Your task to perform on an android device: toggle show notifications on the lock screen Image 0: 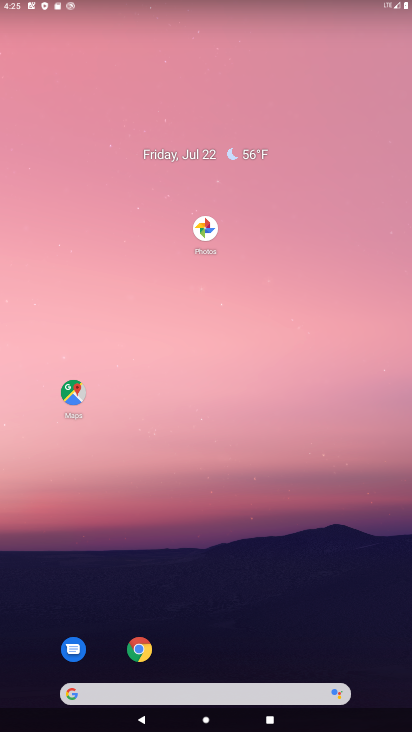
Step 0: drag from (160, 571) to (88, 158)
Your task to perform on an android device: toggle show notifications on the lock screen Image 1: 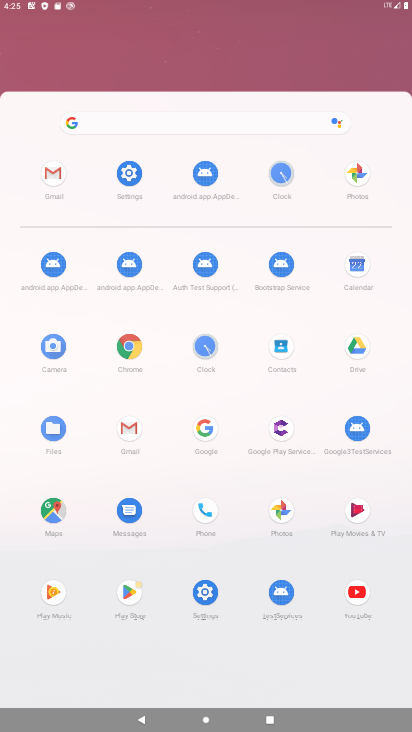
Step 1: drag from (166, 543) to (121, 104)
Your task to perform on an android device: toggle show notifications on the lock screen Image 2: 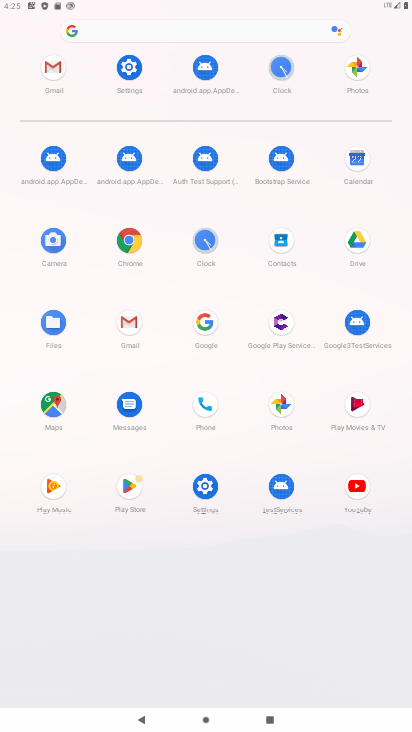
Step 2: drag from (202, 265) to (167, 115)
Your task to perform on an android device: toggle show notifications on the lock screen Image 3: 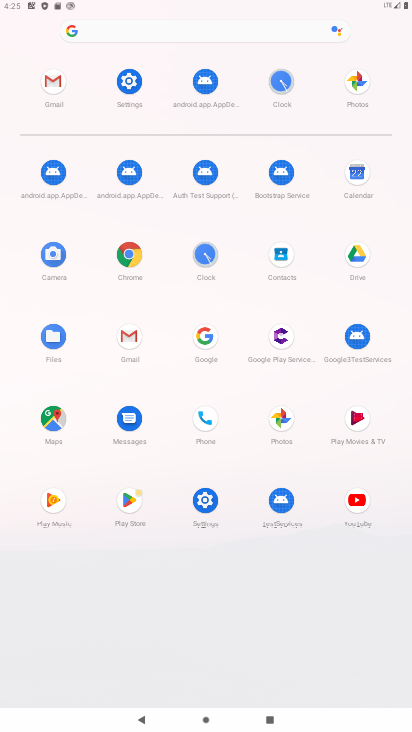
Step 3: click (130, 80)
Your task to perform on an android device: toggle show notifications on the lock screen Image 4: 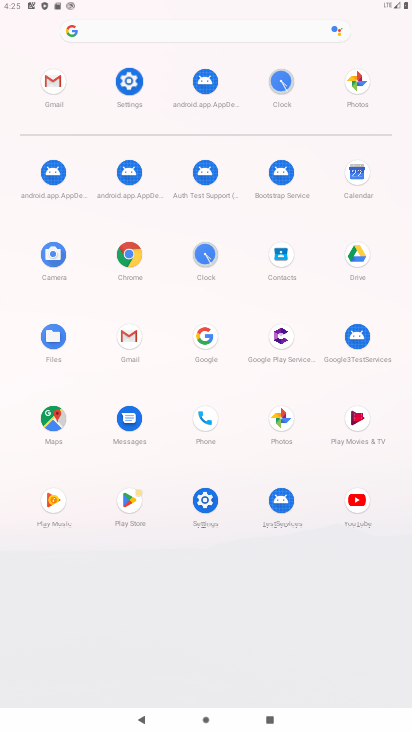
Step 4: click (130, 80)
Your task to perform on an android device: toggle show notifications on the lock screen Image 5: 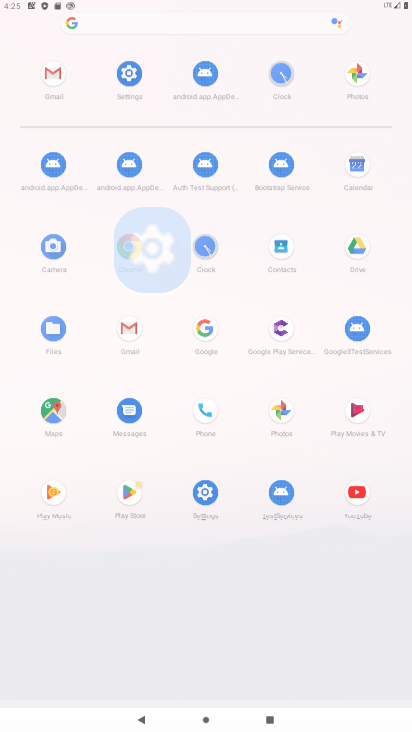
Step 5: click (130, 80)
Your task to perform on an android device: toggle show notifications on the lock screen Image 6: 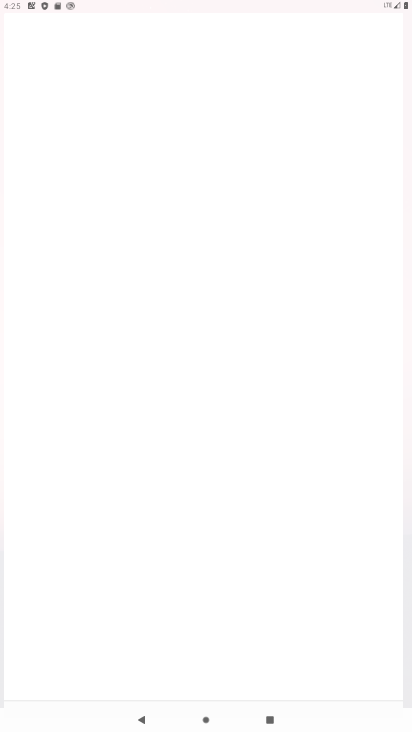
Step 6: click (131, 80)
Your task to perform on an android device: toggle show notifications on the lock screen Image 7: 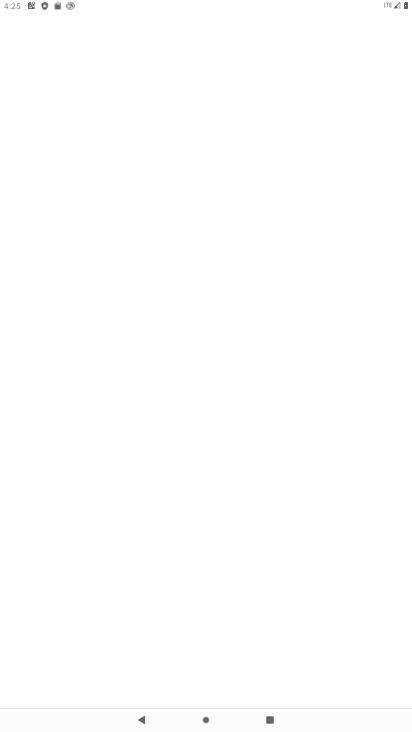
Step 7: click (131, 80)
Your task to perform on an android device: toggle show notifications on the lock screen Image 8: 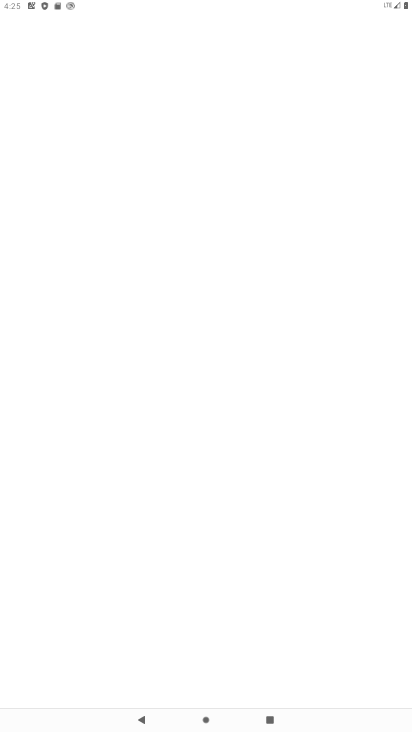
Step 8: click (132, 80)
Your task to perform on an android device: toggle show notifications on the lock screen Image 9: 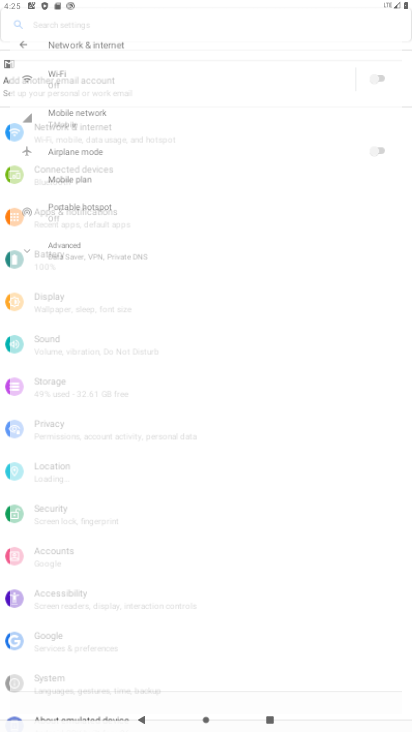
Step 9: click (134, 81)
Your task to perform on an android device: toggle show notifications on the lock screen Image 10: 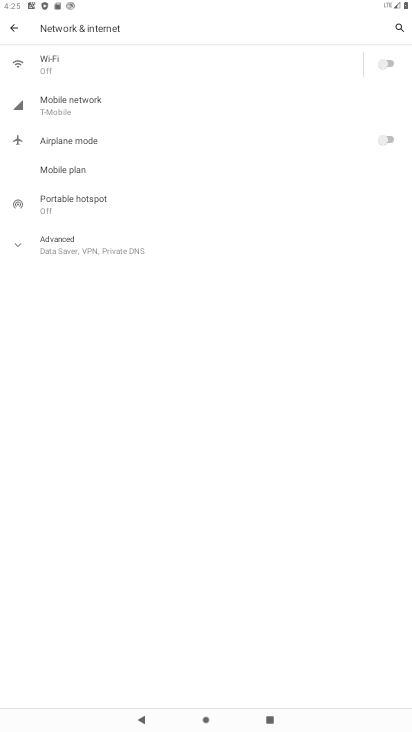
Step 10: click (135, 82)
Your task to perform on an android device: toggle show notifications on the lock screen Image 11: 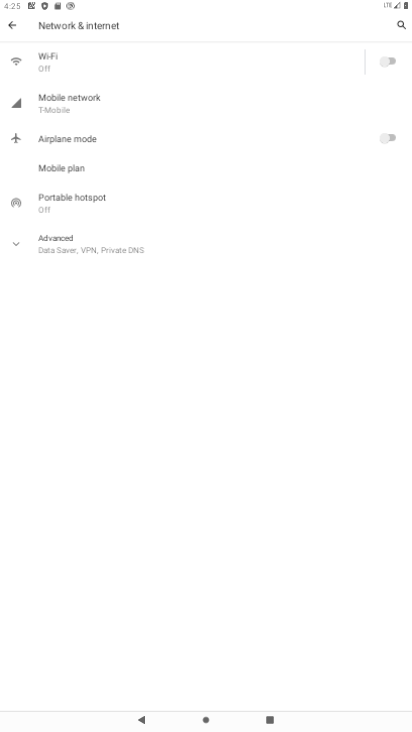
Step 11: click (135, 82)
Your task to perform on an android device: toggle show notifications on the lock screen Image 12: 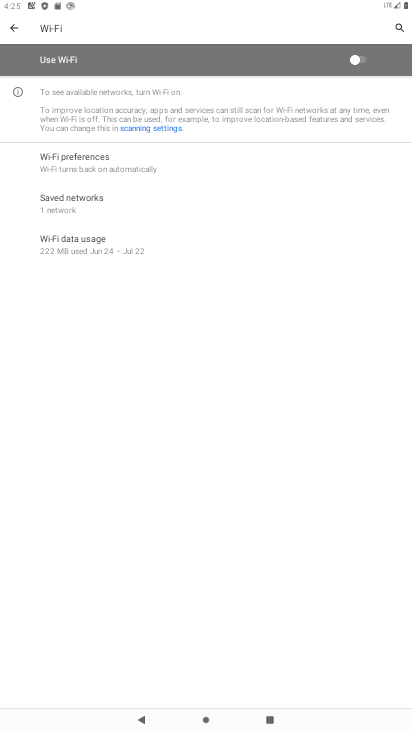
Step 12: click (135, 82)
Your task to perform on an android device: toggle show notifications on the lock screen Image 13: 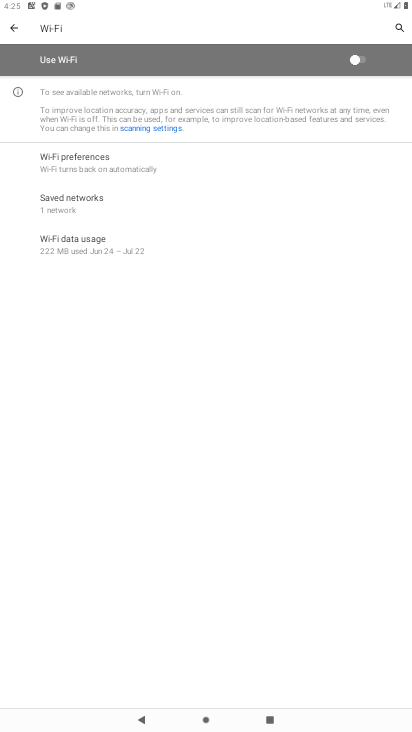
Step 13: click (143, 84)
Your task to perform on an android device: toggle show notifications on the lock screen Image 14: 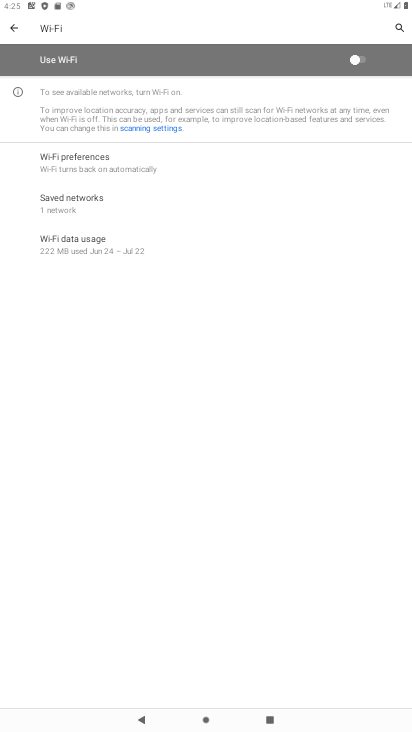
Step 14: click (12, 31)
Your task to perform on an android device: toggle show notifications on the lock screen Image 15: 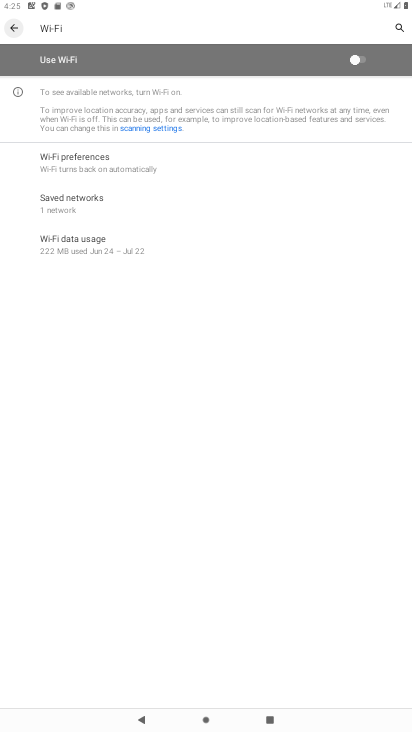
Step 15: click (14, 29)
Your task to perform on an android device: toggle show notifications on the lock screen Image 16: 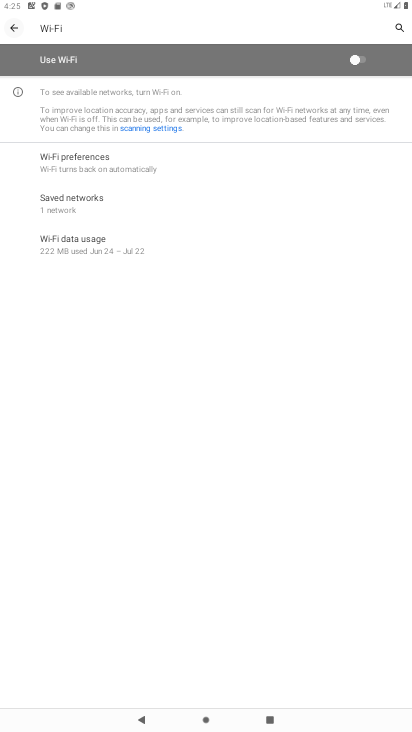
Step 16: click (30, 25)
Your task to perform on an android device: toggle show notifications on the lock screen Image 17: 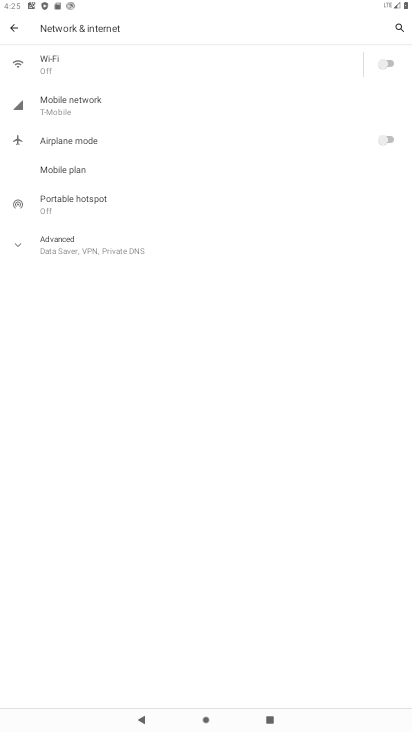
Step 17: click (19, 28)
Your task to perform on an android device: toggle show notifications on the lock screen Image 18: 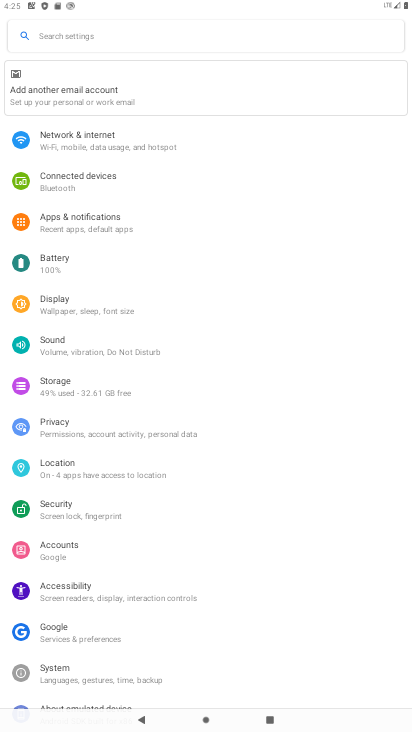
Step 18: drag from (133, 389) to (133, 148)
Your task to perform on an android device: toggle show notifications on the lock screen Image 19: 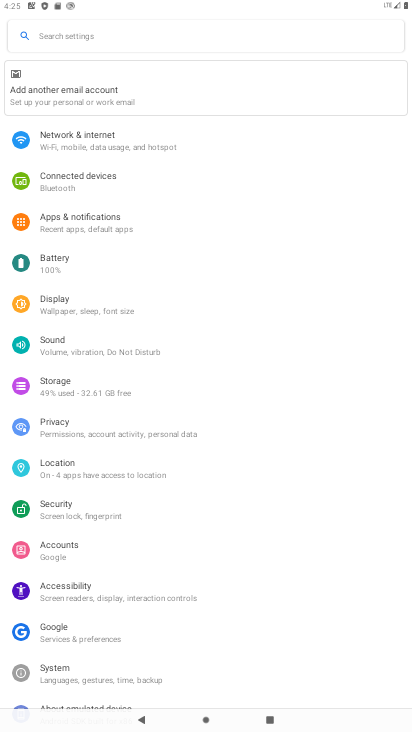
Step 19: drag from (149, 459) to (151, 220)
Your task to perform on an android device: toggle show notifications on the lock screen Image 20: 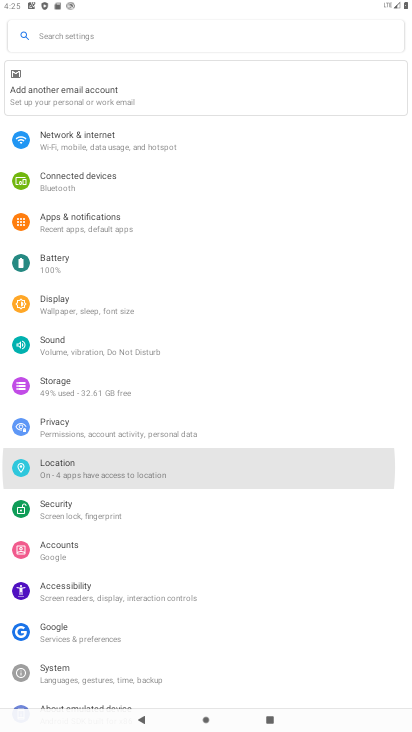
Step 20: drag from (194, 460) to (223, 208)
Your task to perform on an android device: toggle show notifications on the lock screen Image 21: 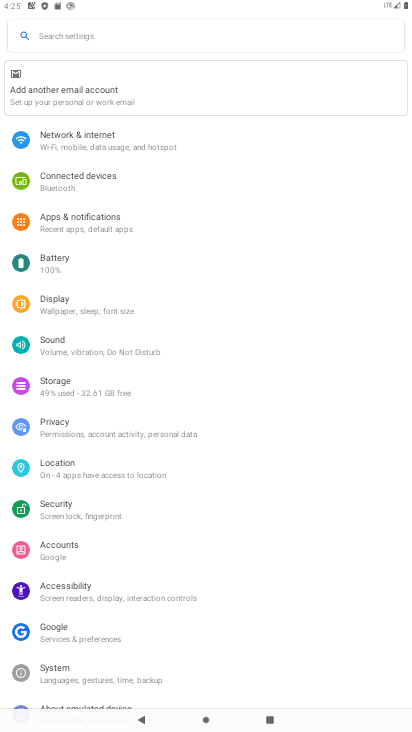
Step 21: click (82, 223)
Your task to perform on an android device: toggle show notifications on the lock screen Image 22: 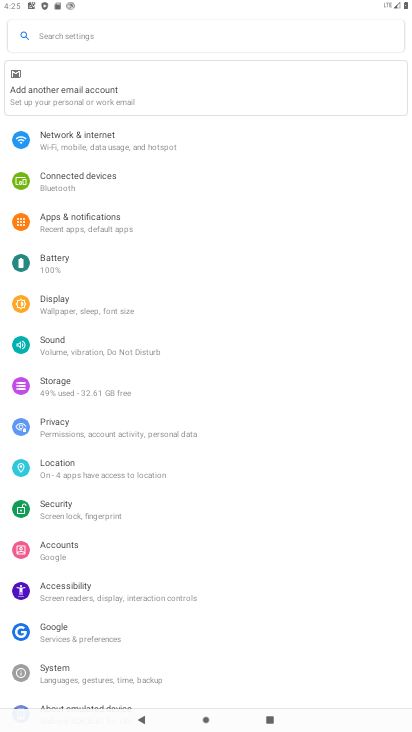
Step 22: click (82, 222)
Your task to perform on an android device: toggle show notifications on the lock screen Image 23: 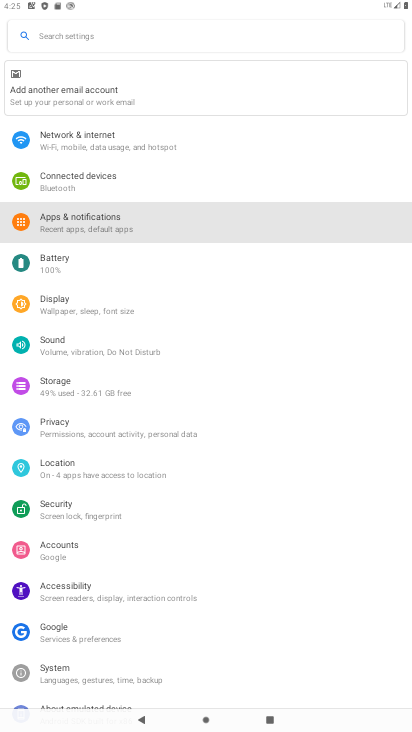
Step 23: click (86, 219)
Your task to perform on an android device: toggle show notifications on the lock screen Image 24: 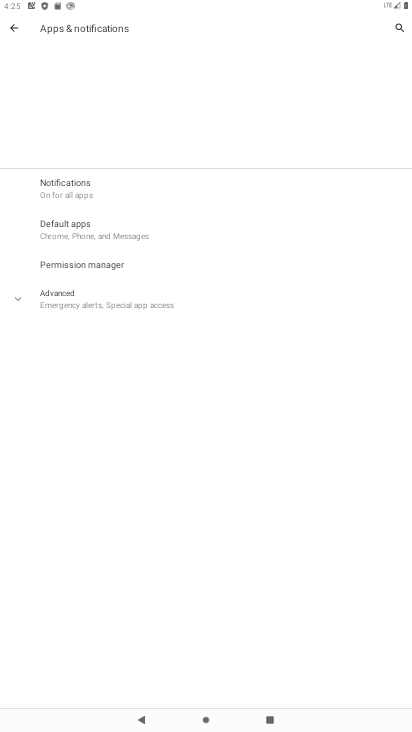
Step 24: click (119, 218)
Your task to perform on an android device: toggle show notifications on the lock screen Image 25: 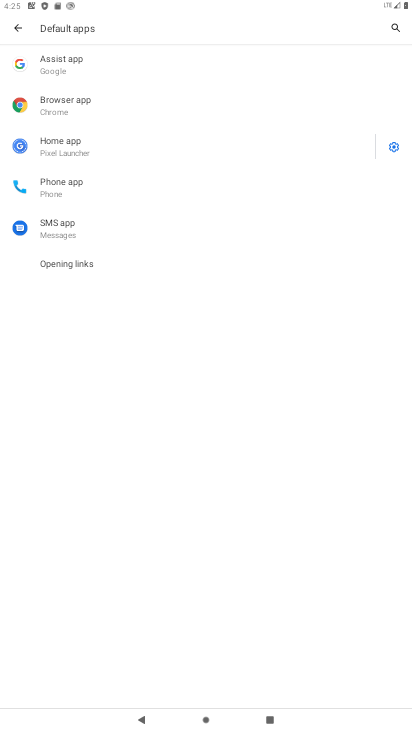
Step 25: click (15, 27)
Your task to perform on an android device: toggle show notifications on the lock screen Image 26: 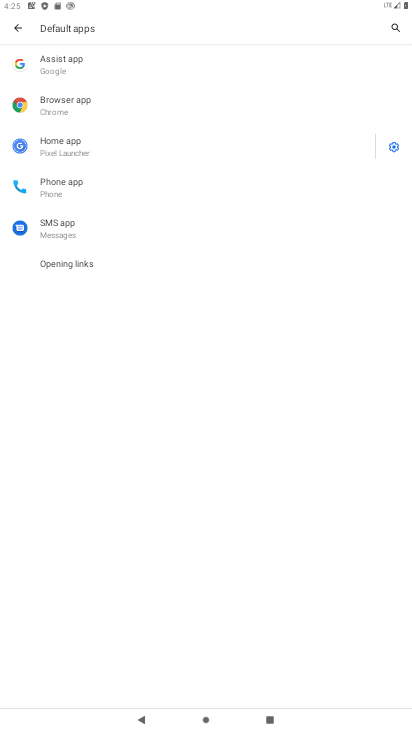
Step 26: click (15, 27)
Your task to perform on an android device: toggle show notifications on the lock screen Image 27: 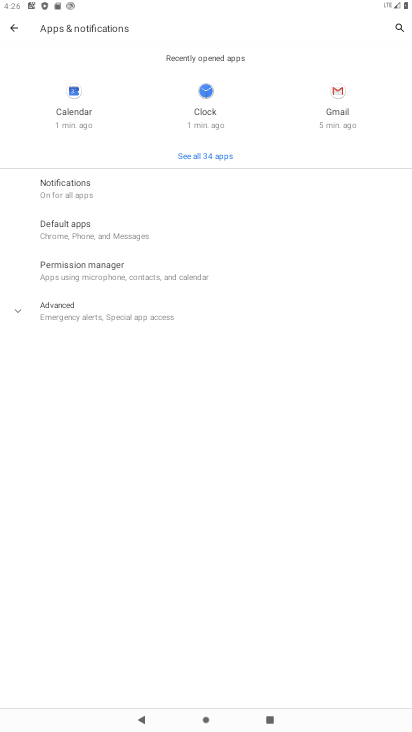
Step 27: click (61, 183)
Your task to perform on an android device: toggle show notifications on the lock screen Image 28: 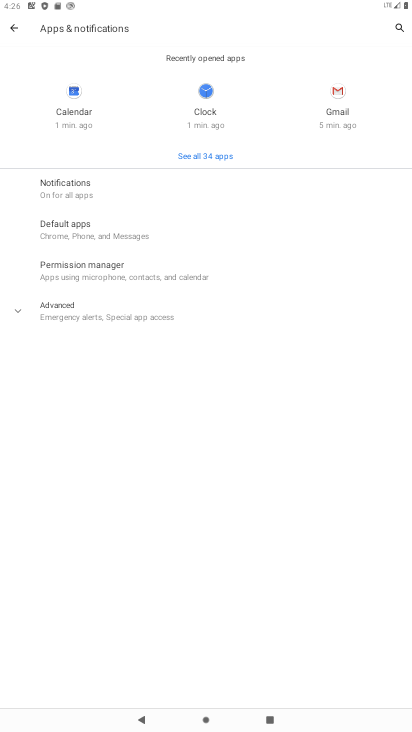
Step 28: click (77, 178)
Your task to perform on an android device: toggle show notifications on the lock screen Image 29: 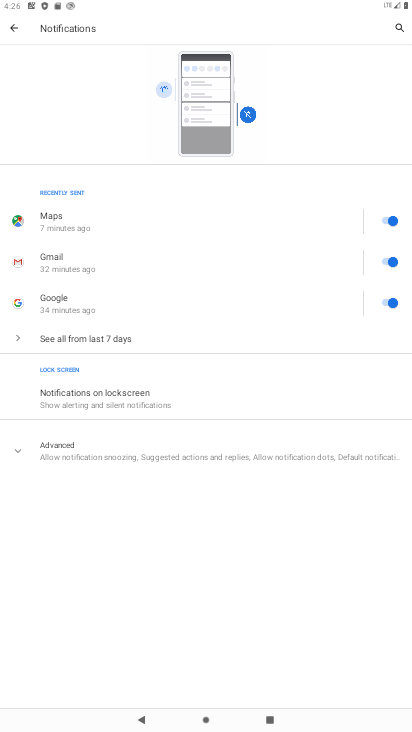
Step 29: click (83, 399)
Your task to perform on an android device: toggle show notifications on the lock screen Image 30: 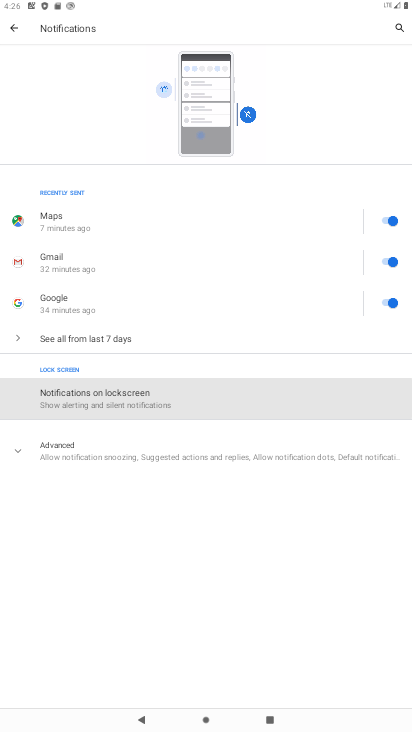
Step 30: click (81, 396)
Your task to perform on an android device: toggle show notifications on the lock screen Image 31: 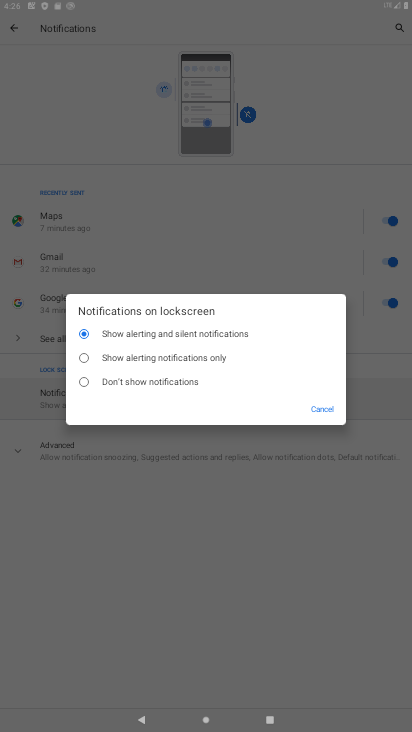
Step 31: click (84, 393)
Your task to perform on an android device: toggle show notifications on the lock screen Image 32: 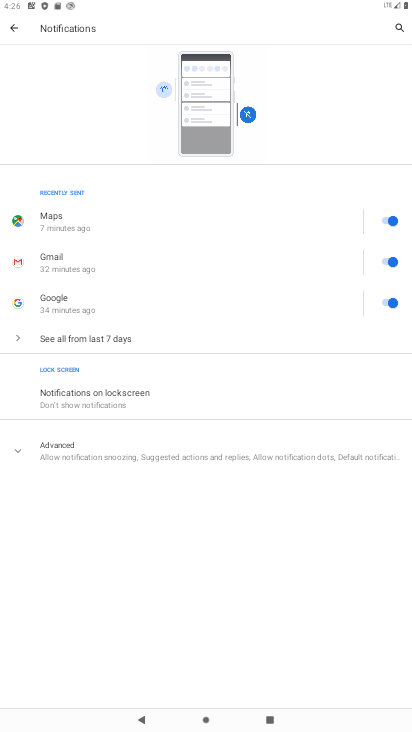
Step 32: click (90, 394)
Your task to perform on an android device: toggle show notifications on the lock screen Image 33: 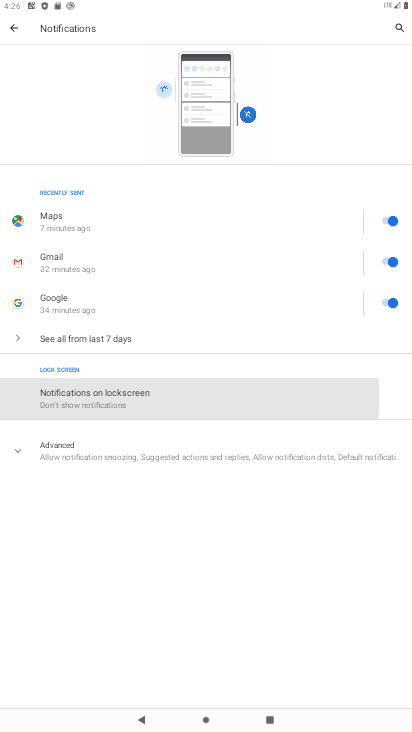
Step 33: click (95, 391)
Your task to perform on an android device: toggle show notifications on the lock screen Image 34: 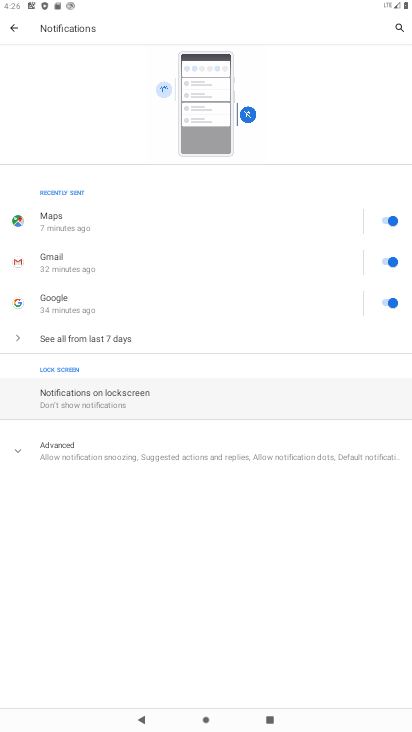
Step 34: click (97, 391)
Your task to perform on an android device: toggle show notifications on the lock screen Image 35: 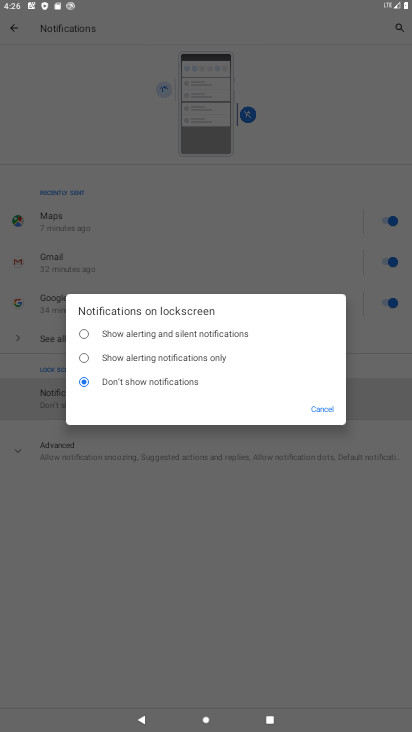
Step 35: click (111, 383)
Your task to perform on an android device: toggle show notifications on the lock screen Image 36: 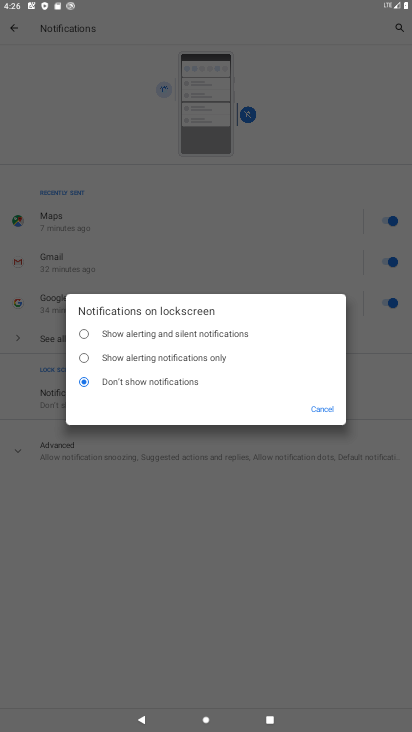
Step 36: click (124, 376)
Your task to perform on an android device: toggle show notifications on the lock screen Image 37: 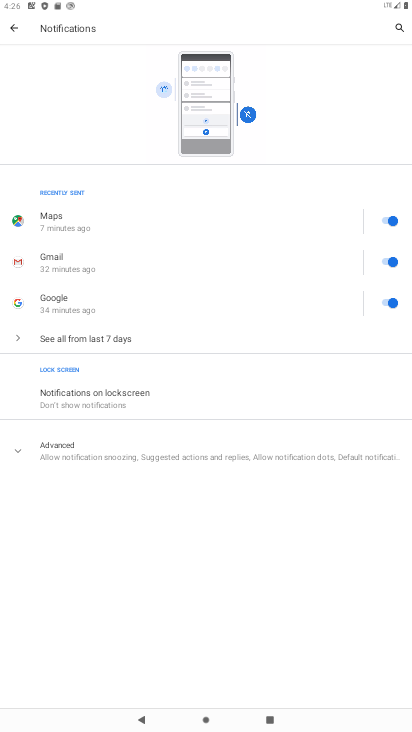
Step 37: click (63, 386)
Your task to perform on an android device: toggle show notifications on the lock screen Image 38: 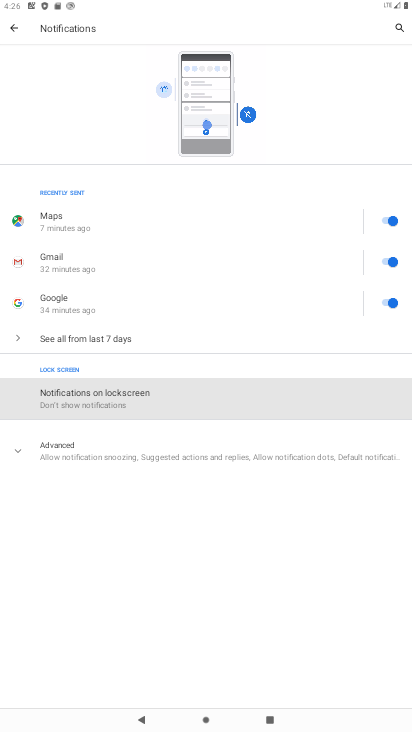
Step 38: click (76, 381)
Your task to perform on an android device: toggle show notifications on the lock screen Image 39: 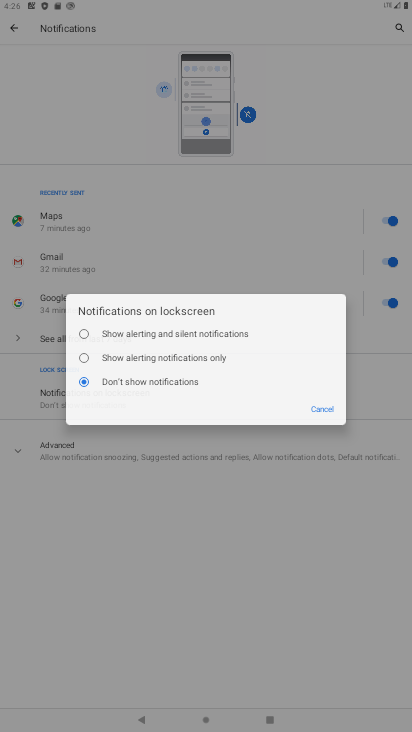
Step 39: click (76, 381)
Your task to perform on an android device: toggle show notifications on the lock screen Image 40: 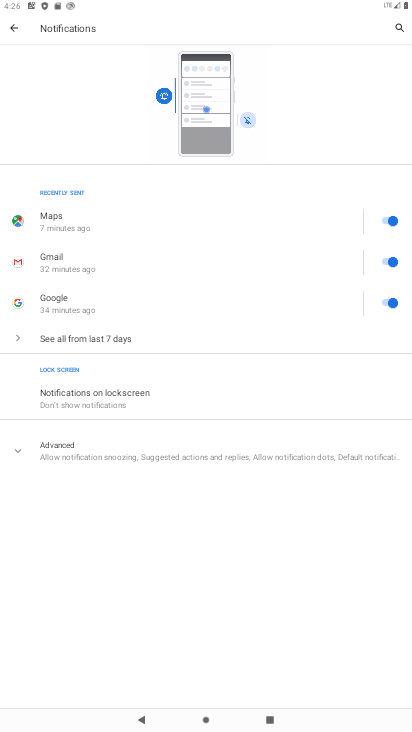
Step 40: click (20, 29)
Your task to perform on an android device: toggle show notifications on the lock screen Image 41: 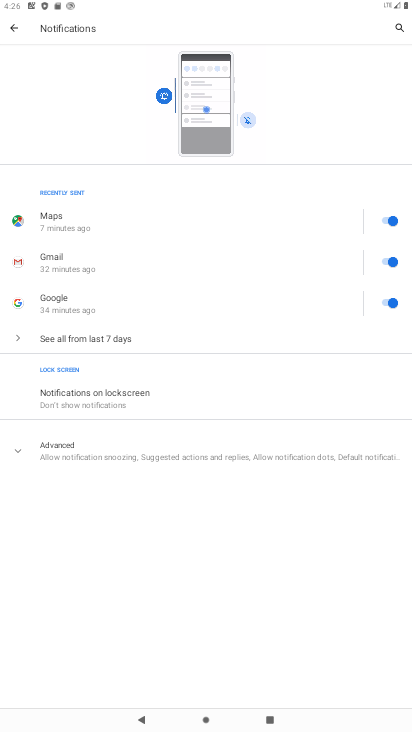
Step 41: click (20, 28)
Your task to perform on an android device: toggle show notifications on the lock screen Image 42: 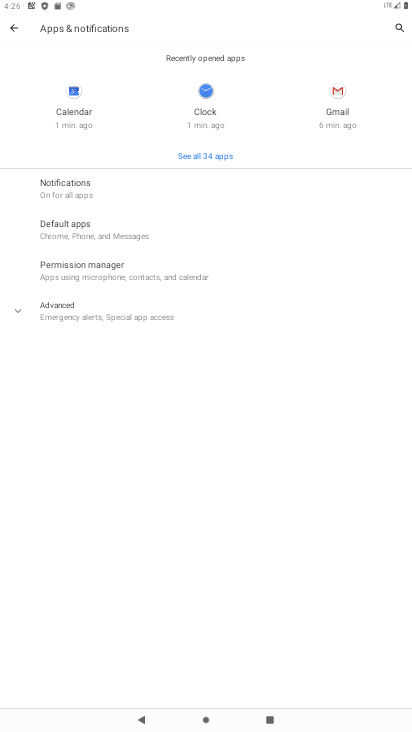
Step 42: click (41, 180)
Your task to perform on an android device: toggle show notifications on the lock screen Image 43: 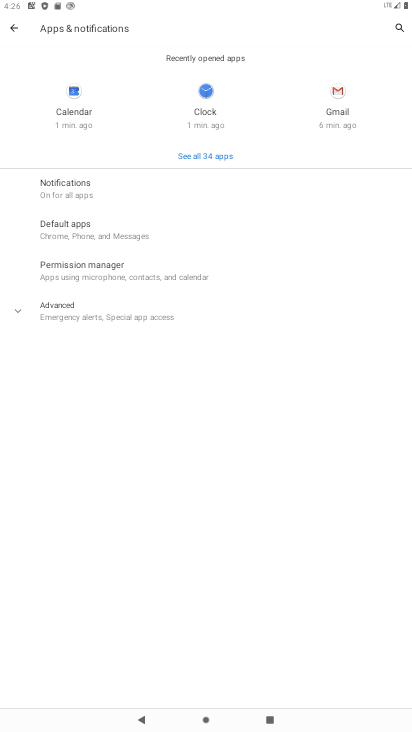
Step 43: click (53, 189)
Your task to perform on an android device: toggle show notifications on the lock screen Image 44: 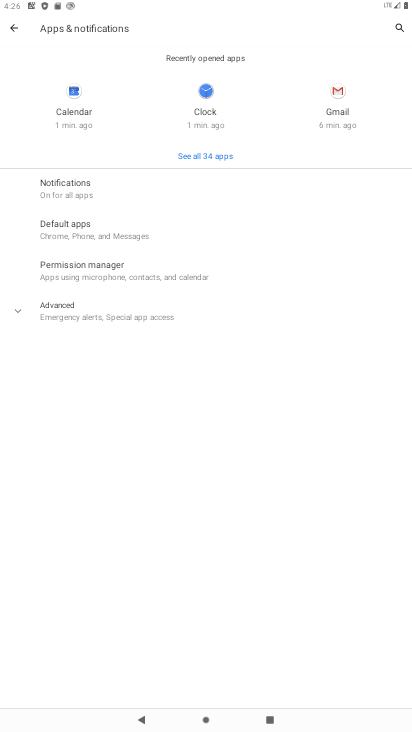
Step 44: click (58, 190)
Your task to perform on an android device: toggle show notifications on the lock screen Image 45: 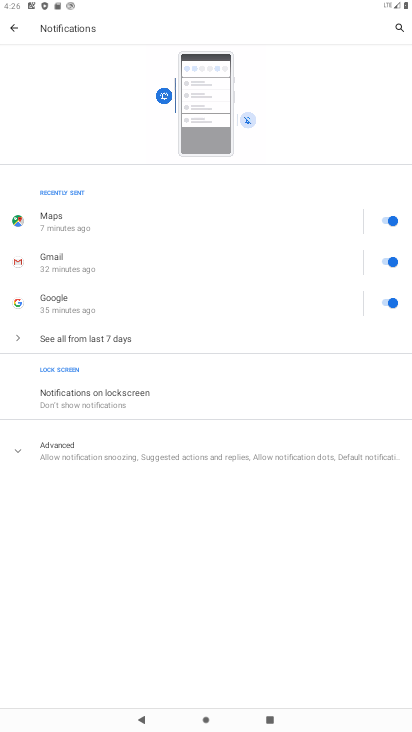
Step 45: click (107, 390)
Your task to perform on an android device: toggle show notifications on the lock screen Image 46: 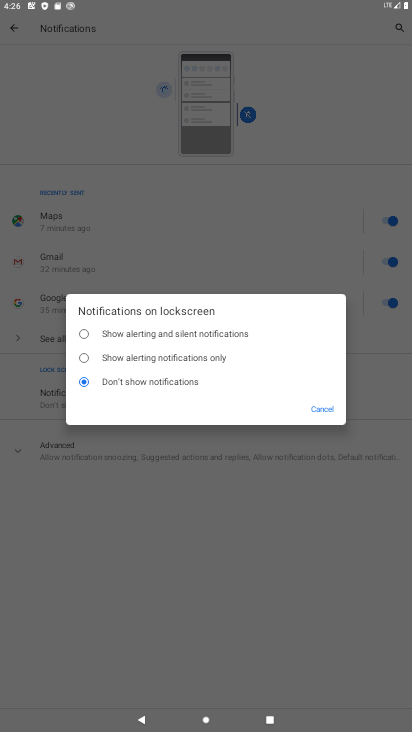
Step 46: click (80, 331)
Your task to perform on an android device: toggle show notifications on the lock screen Image 47: 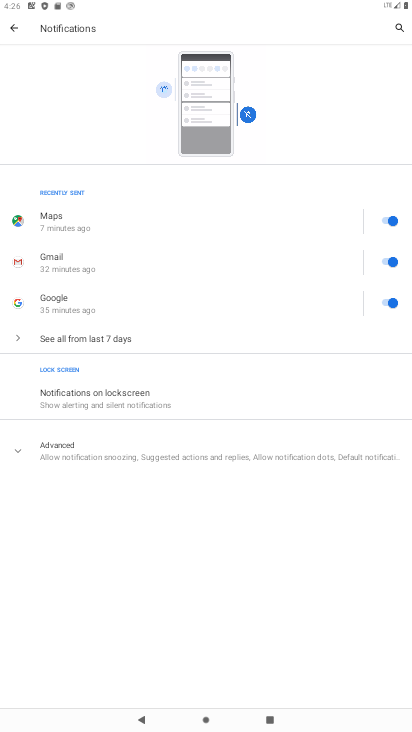
Step 47: task complete